Your task to perform on an android device: toggle translation in the chrome app Image 0: 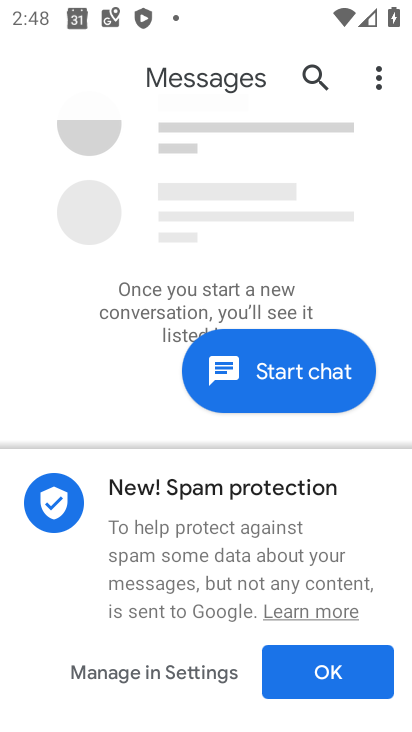
Step 0: press back button
Your task to perform on an android device: toggle translation in the chrome app Image 1: 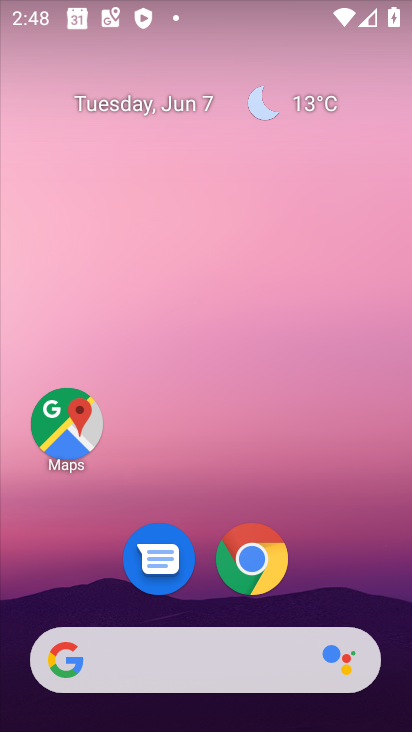
Step 1: click (250, 564)
Your task to perform on an android device: toggle translation in the chrome app Image 2: 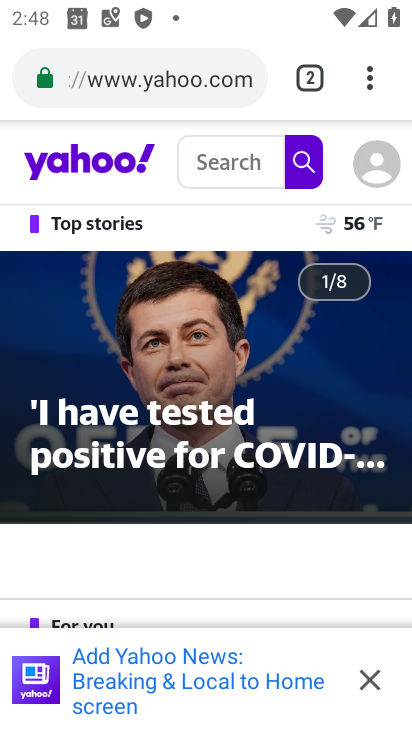
Step 2: click (370, 77)
Your task to perform on an android device: toggle translation in the chrome app Image 3: 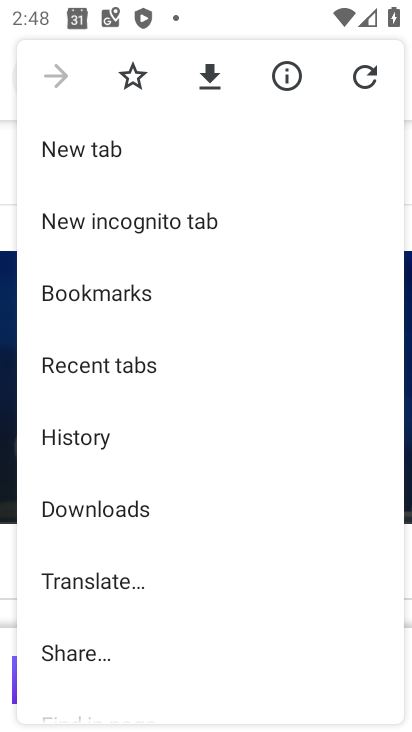
Step 3: drag from (220, 491) to (240, 336)
Your task to perform on an android device: toggle translation in the chrome app Image 4: 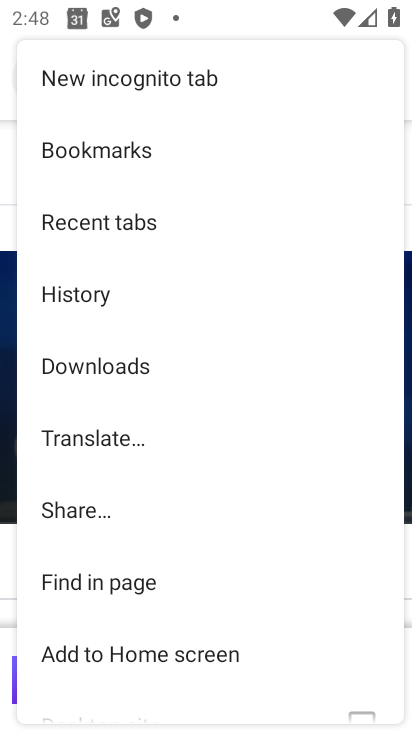
Step 4: drag from (209, 608) to (259, 348)
Your task to perform on an android device: toggle translation in the chrome app Image 5: 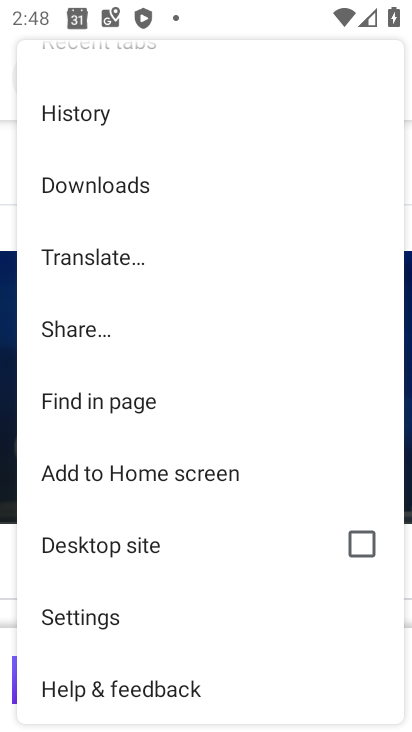
Step 5: click (102, 616)
Your task to perform on an android device: toggle translation in the chrome app Image 6: 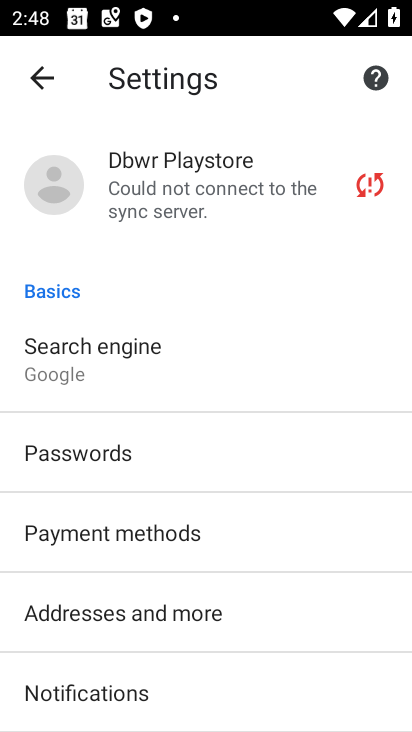
Step 6: drag from (223, 511) to (268, 366)
Your task to perform on an android device: toggle translation in the chrome app Image 7: 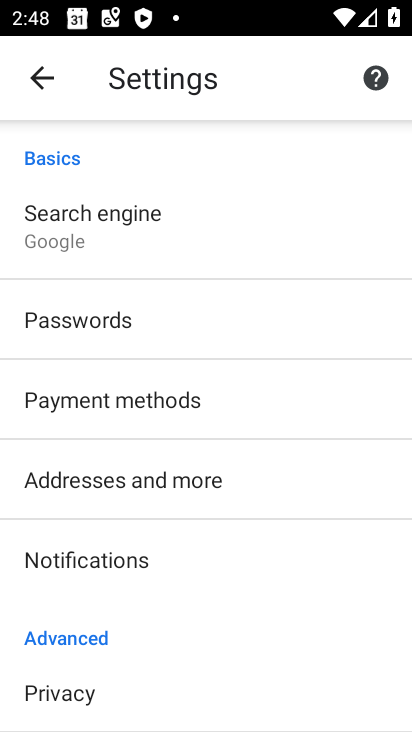
Step 7: drag from (202, 532) to (264, 386)
Your task to perform on an android device: toggle translation in the chrome app Image 8: 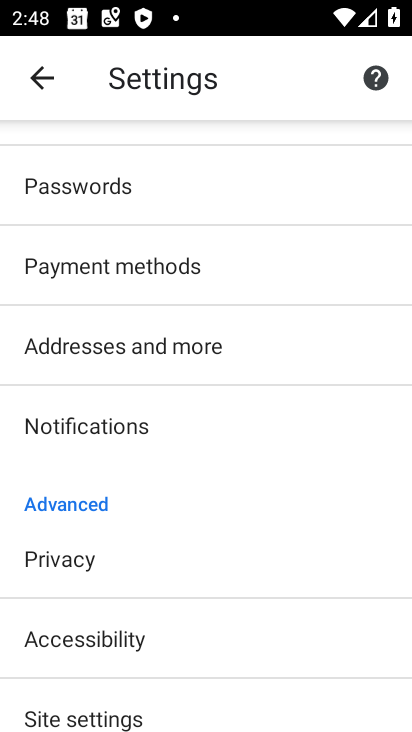
Step 8: drag from (150, 530) to (242, 384)
Your task to perform on an android device: toggle translation in the chrome app Image 9: 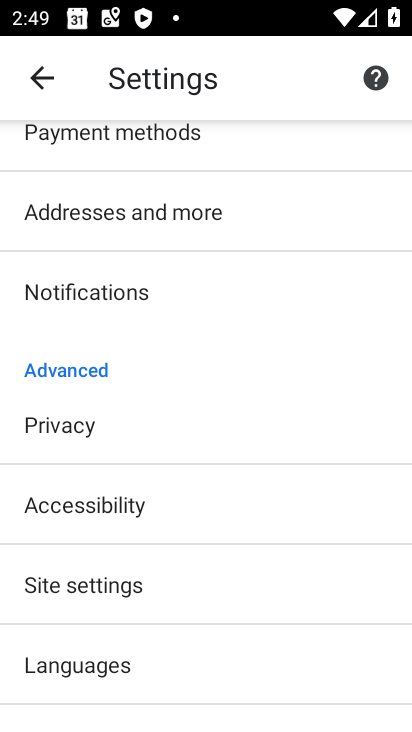
Step 9: drag from (166, 514) to (257, 383)
Your task to perform on an android device: toggle translation in the chrome app Image 10: 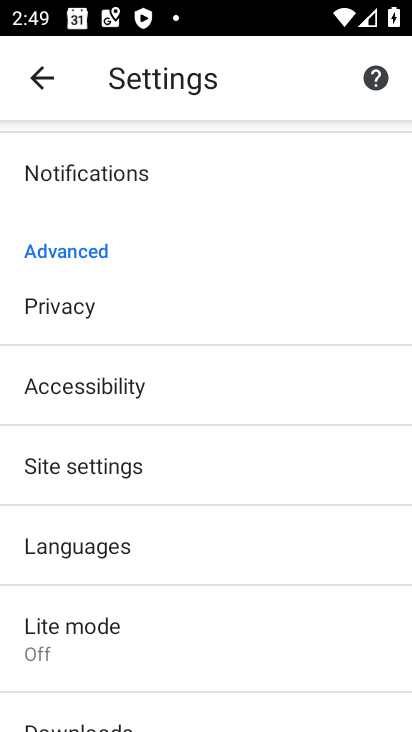
Step 10: click (129, 542)
Your task to perform on an android device: toggle translation in the chrome app Image 11: 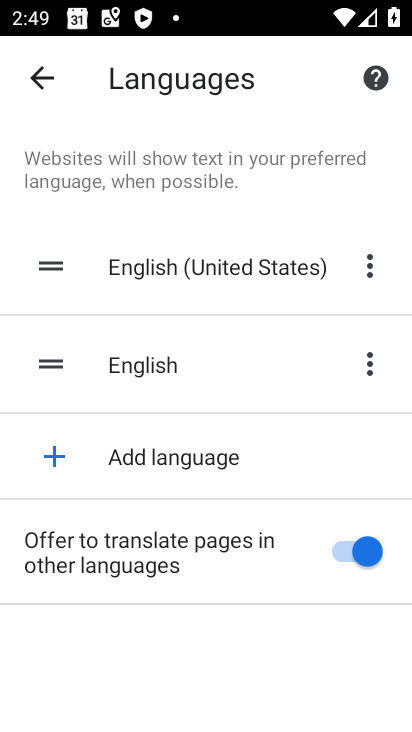
Step 11: click (368, 541)
Your task to perform on an android device: toggle translation in the chrome app Image 12: 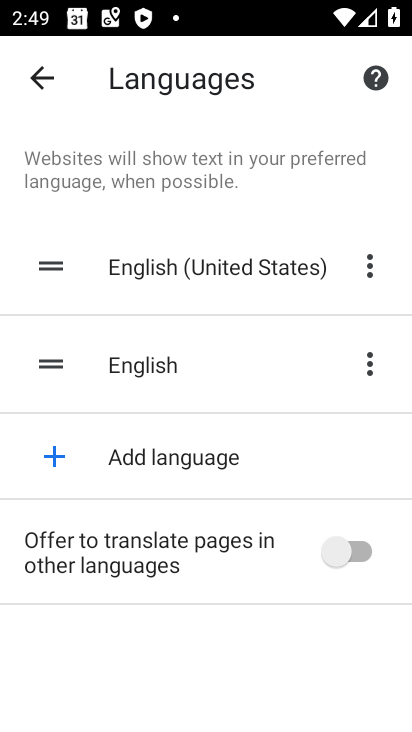
Step 12: task complete